Your task to perform on an android device: open chrome and create a bookmark for the current page Image 0: 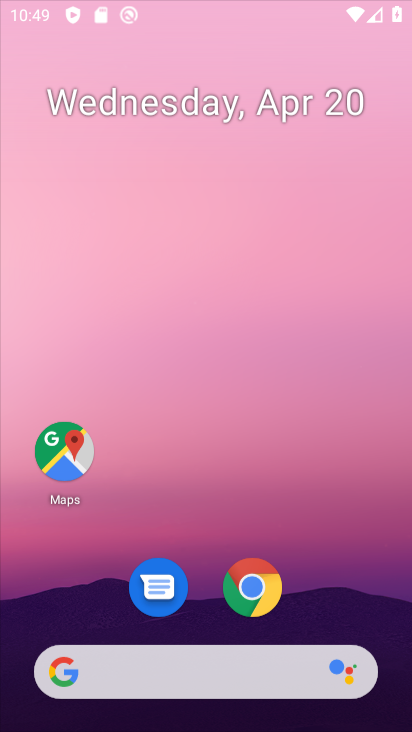
Step 0: click (277, 10)
Your task to perform on an android device: open chrome and create a bookmark for the current page Image 1: 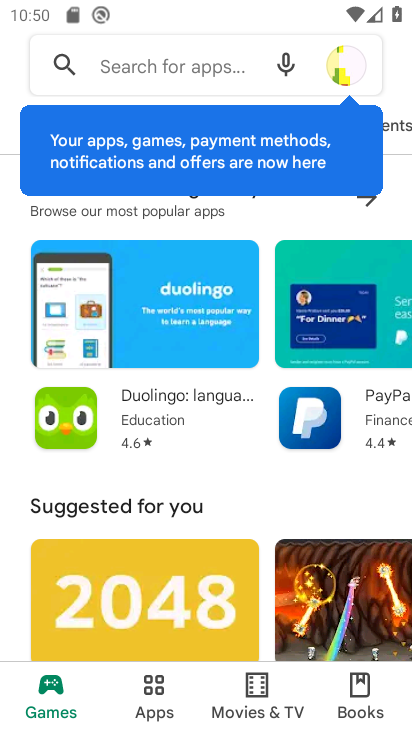
Step 1: press back button
Your task to perform on an android device: open chrome and create a bookmark for the current page Image 2: 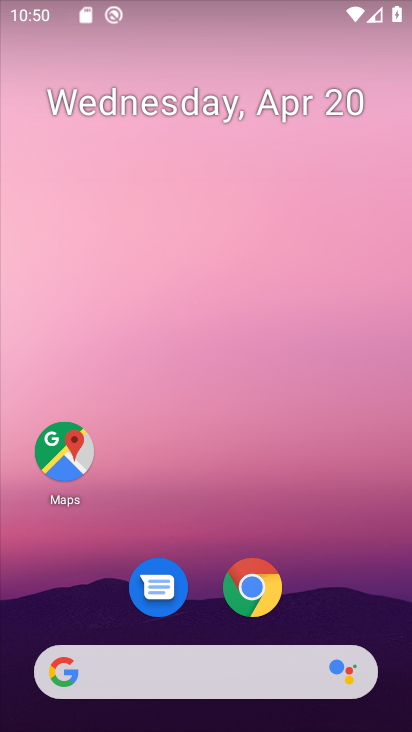
Step 2: click (249, 585)
Your task to perform on an android device: open chrome and create a bookmark for the current page Image 3: 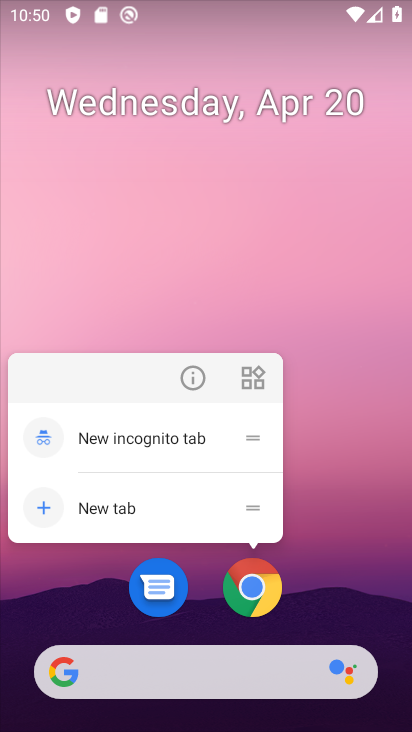
Step 3: click (255, 581)
Your task to perform on an android device: open chrome and create a bookmark for the current page Image 4: 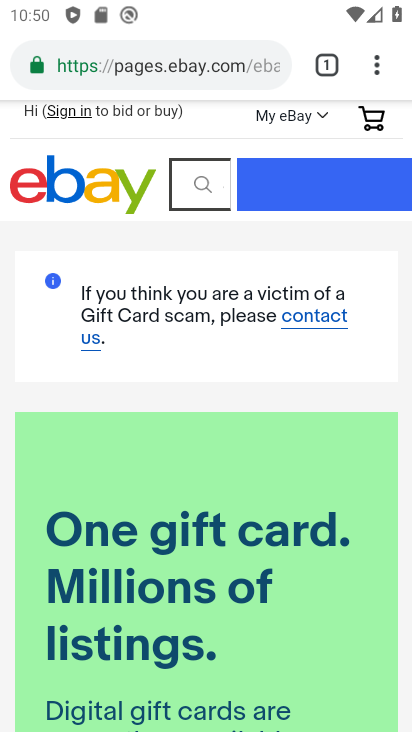
Step 4: task complete